Your task to perform on an android device: all mails in gmail Image 0: 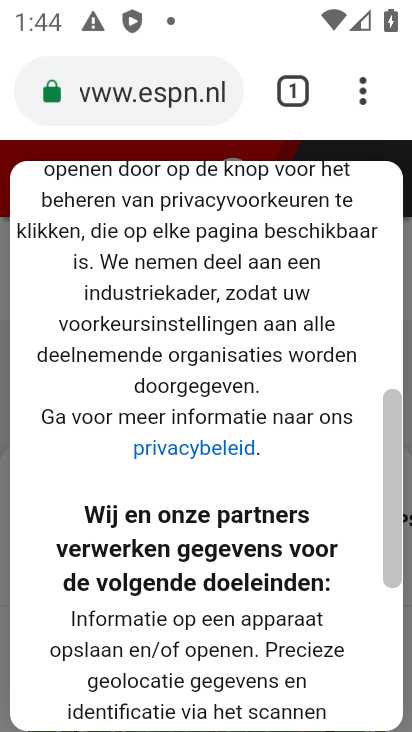
Step 0: press home button
Your task to perform on an android device: all mails in gmail Image 1: 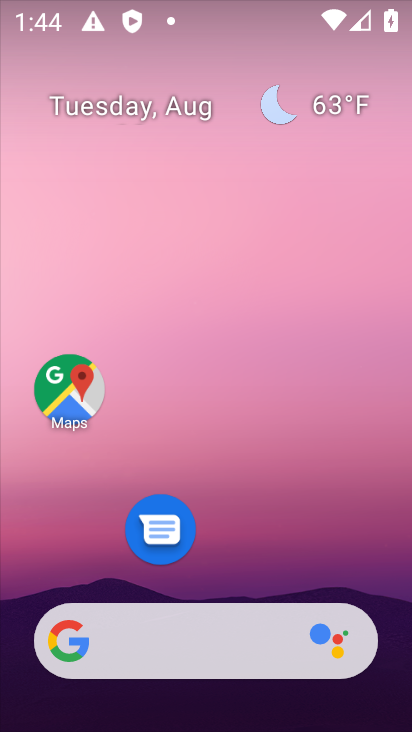
Step 1: drag from (270, 602) to (275, 118)
Your task to perform on an android device: all mails in gmail Image 2: 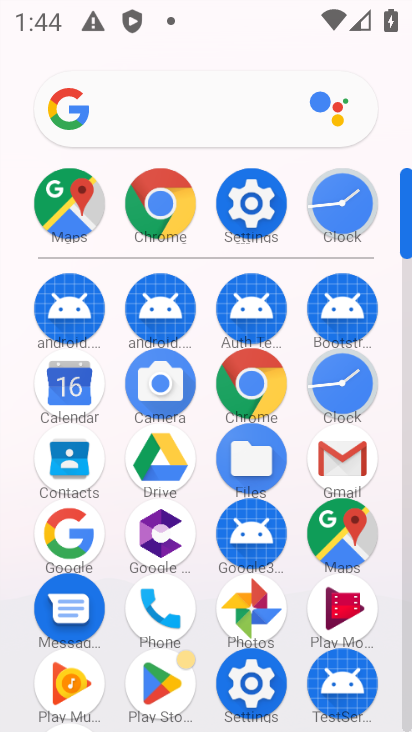
Step 2: click (324, 462)
Your task to perform on an android device: all mails in gmail Image 3: 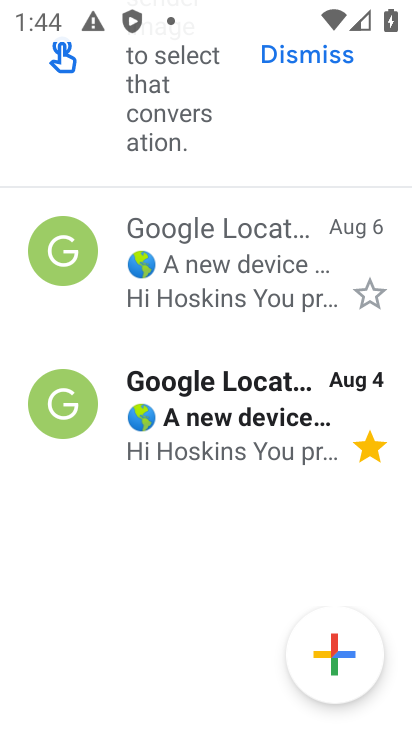
Step 3: task complete